Your task to perform on an android device: Search for a new nail polish Image 0: 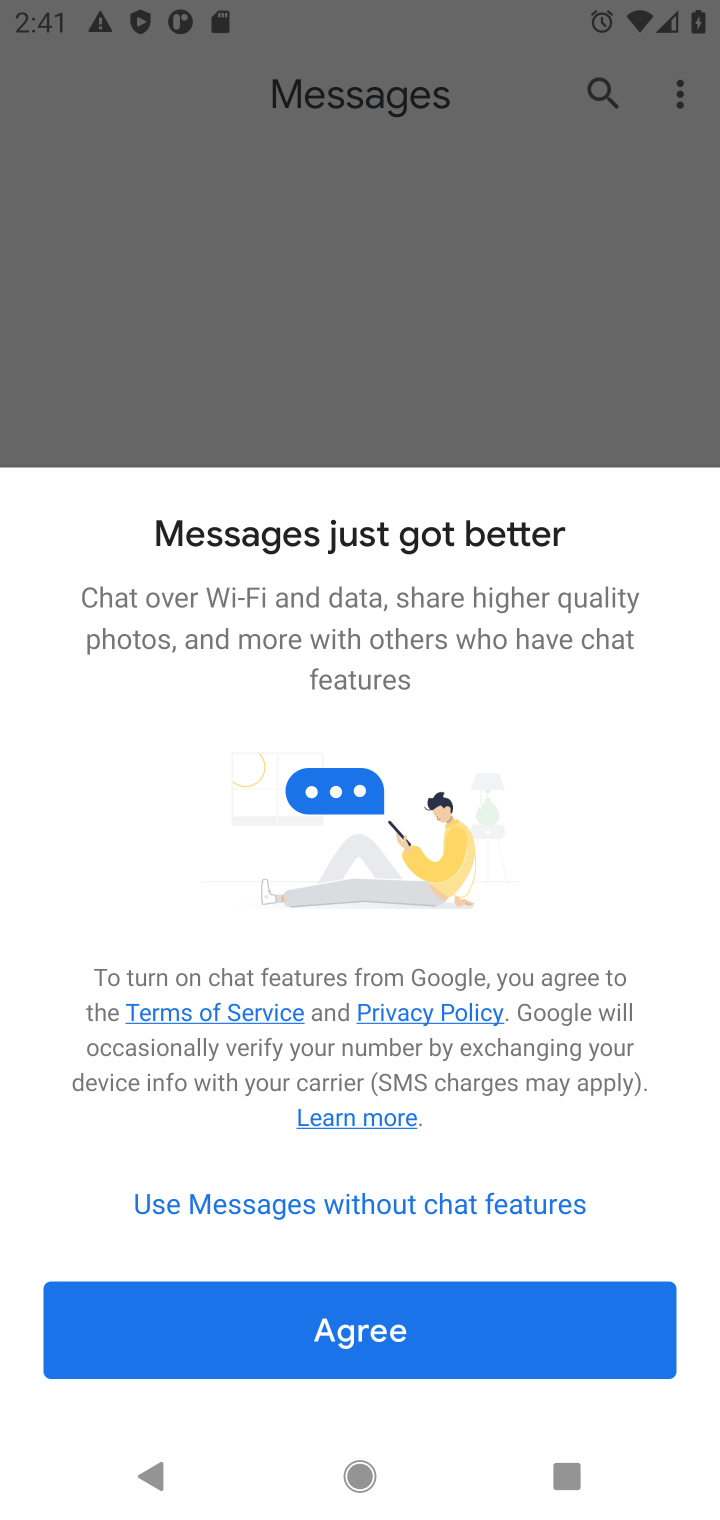
Step 0: press home button
Your task to perform on an android device: Search for a new nail polish Image 1: 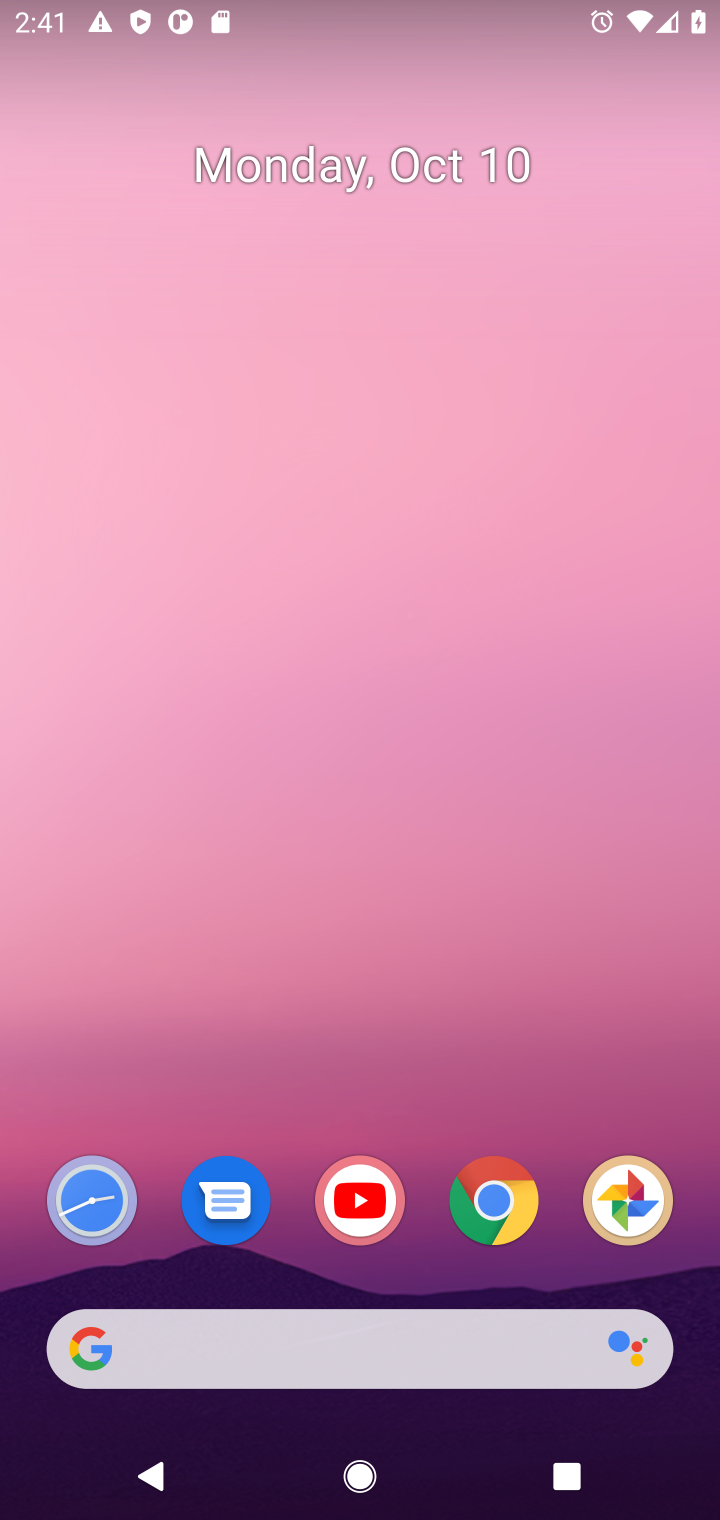
Step 1: click (487, 1206)
Your task to perform on an android device: Search for a new nail polish Image 2: 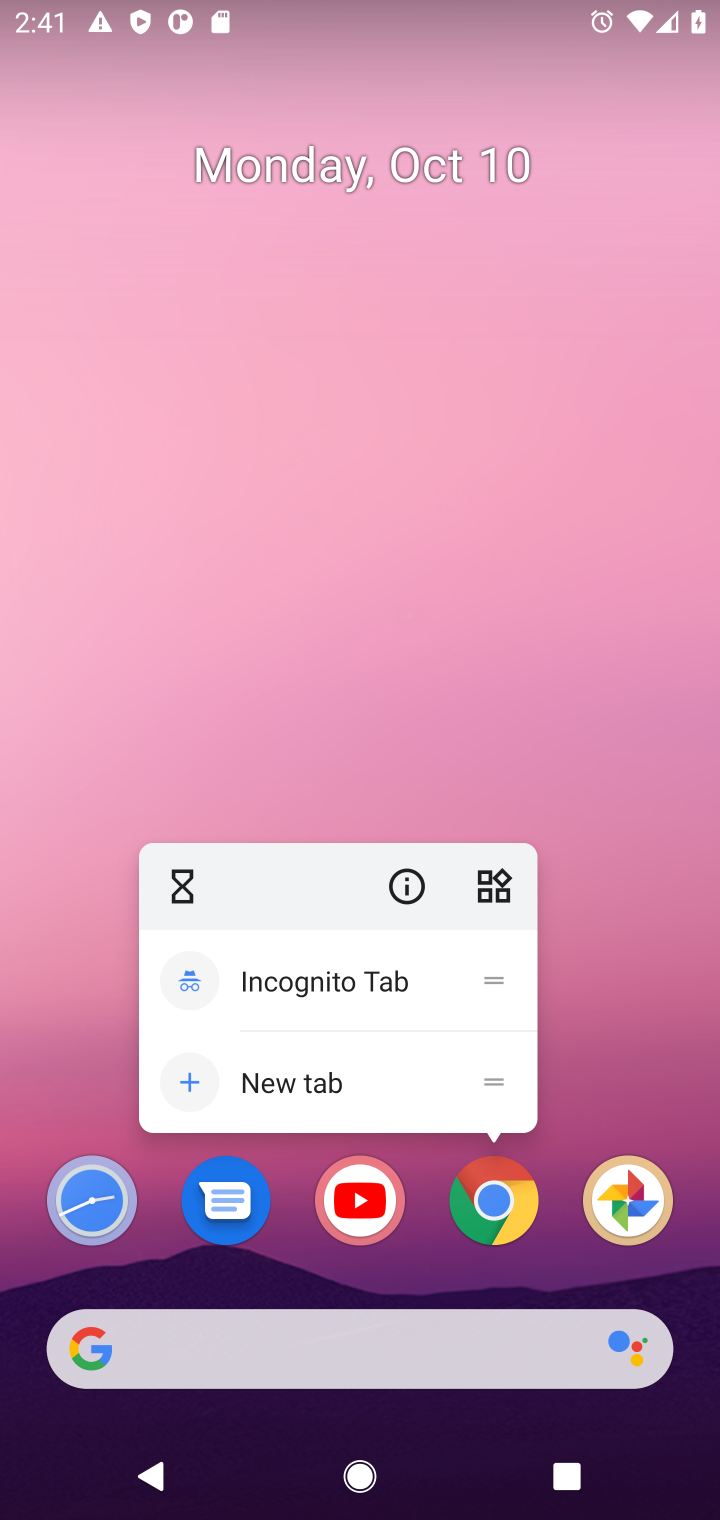
Step 2: click (503, 1219)
Your task to perform on an android device: Search for a new nail polish Image 3: 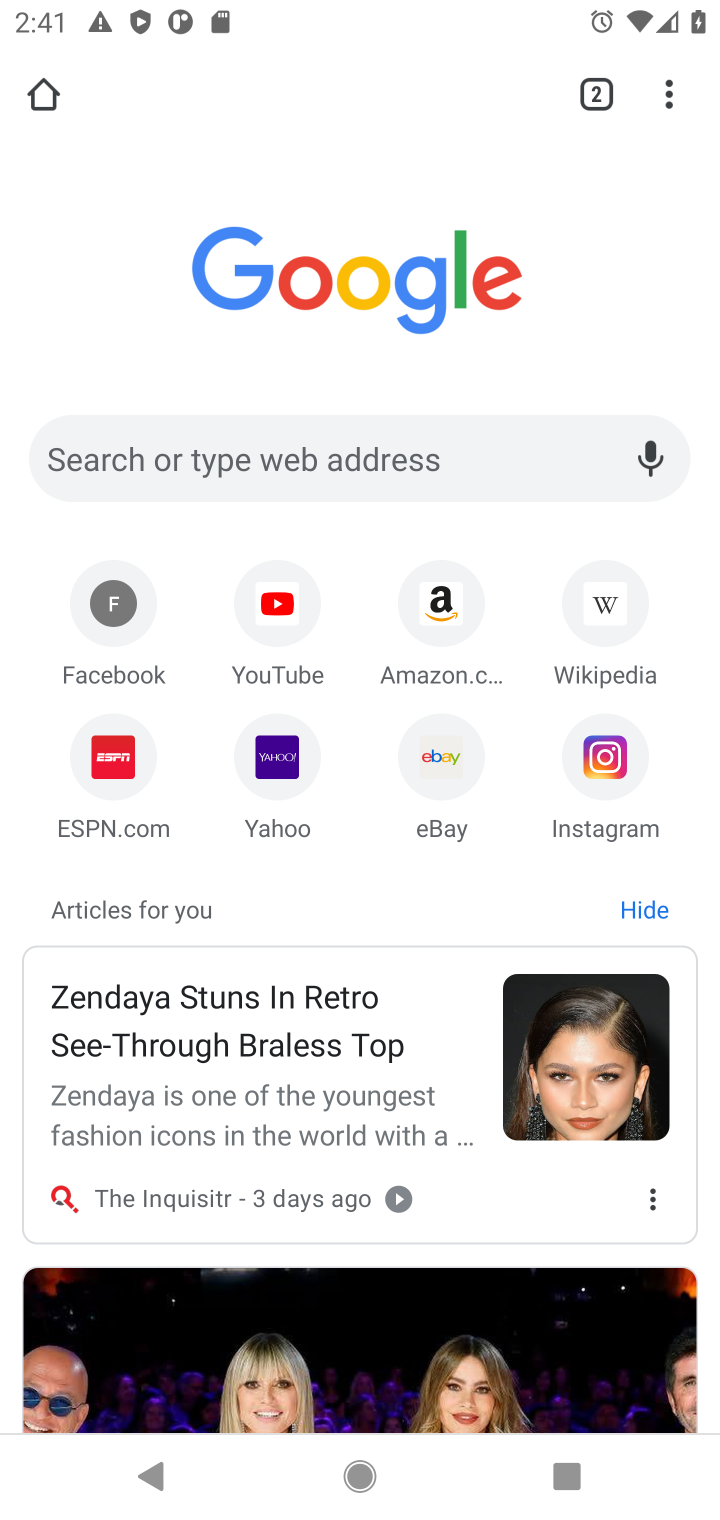
Step 3: click (403, 460)
Your task to perform on an android device: Search for a new nail polish Image 4: 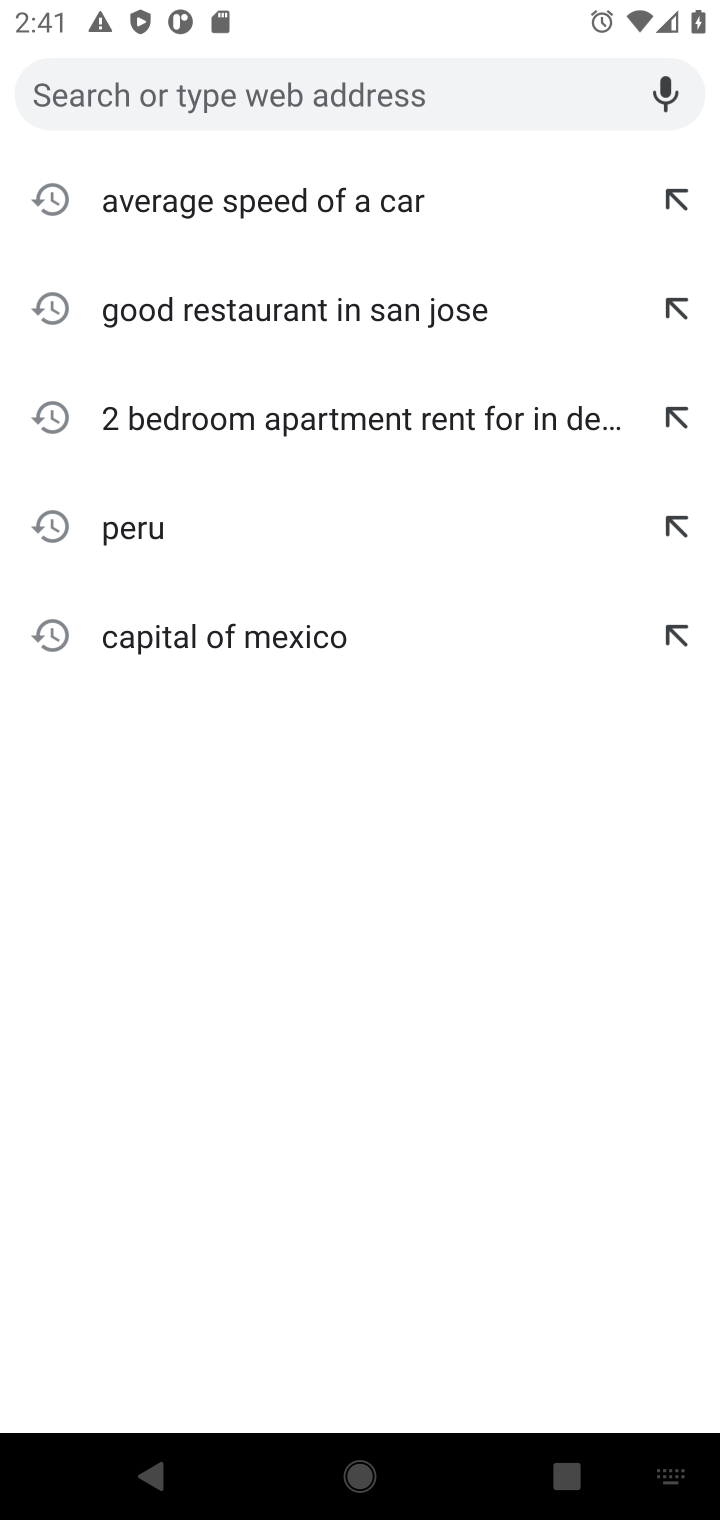
Step 4: type "a new nail polish"
Your task to perform on an android device: Search for a new nail polish Image 5: 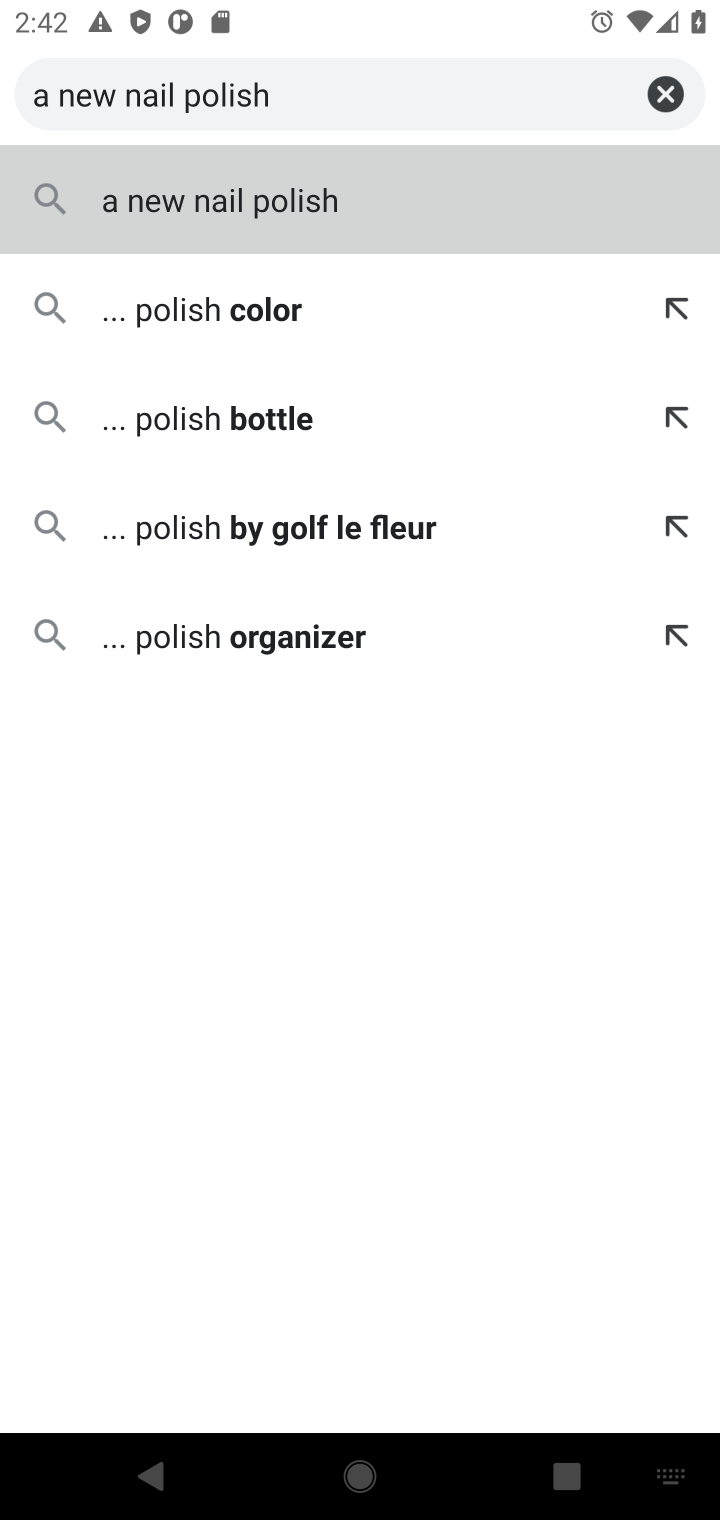
Step 5: type ""
Your task to perform on an android device: Search for a new nail polish Image 6: 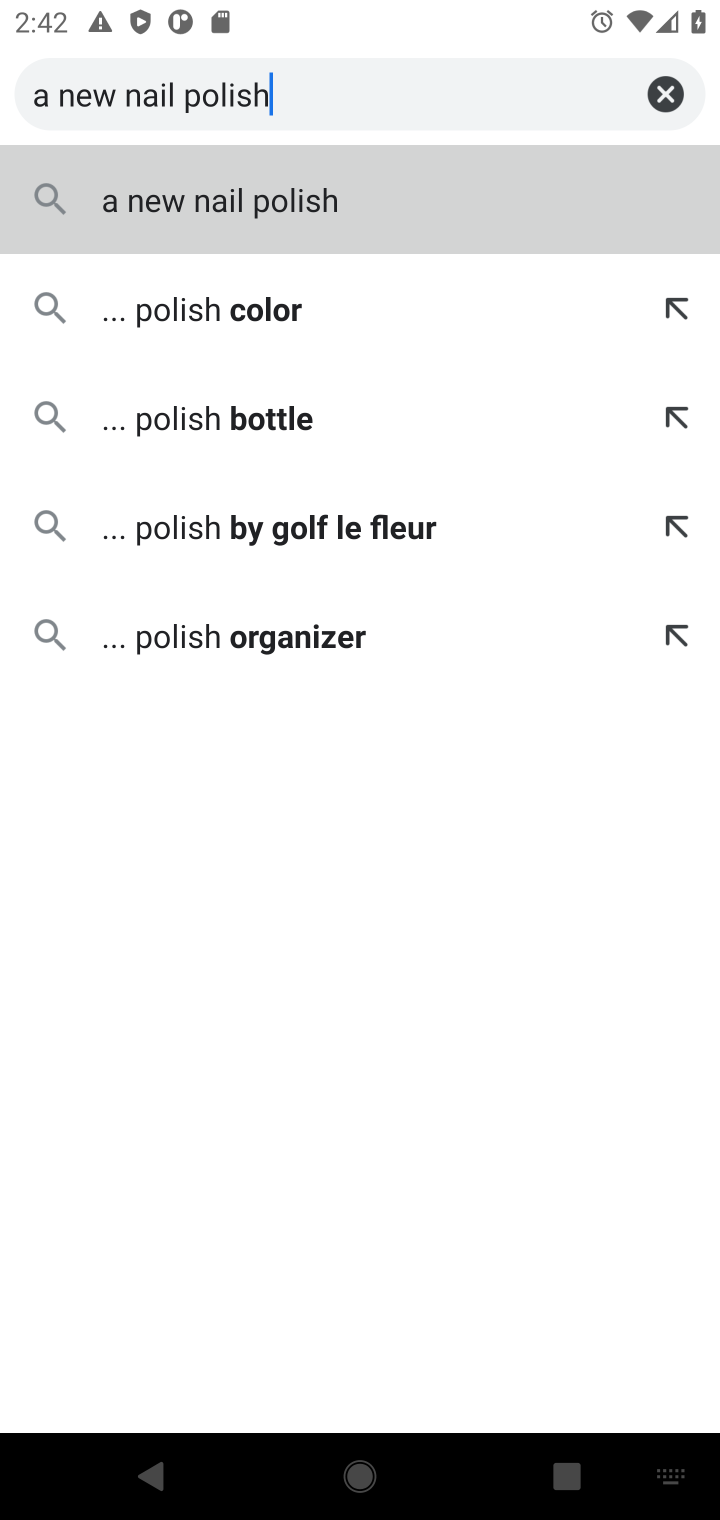
Step 6: click (230, 200)
Your task to perform on an android device: Search for a new nail polish Image 7: 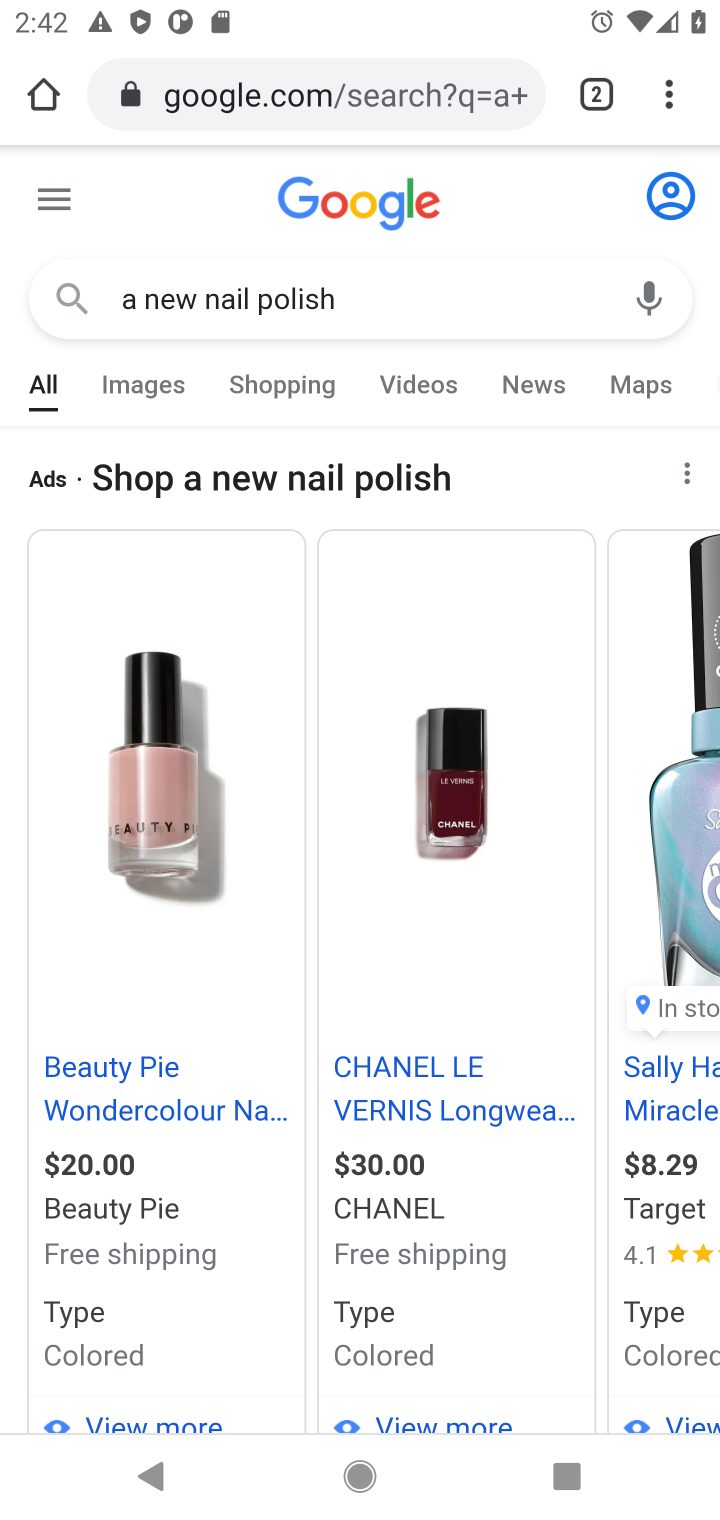
Step 7: task complete